Your task to perform on an android device: find which apps use the phone's location Image 0: 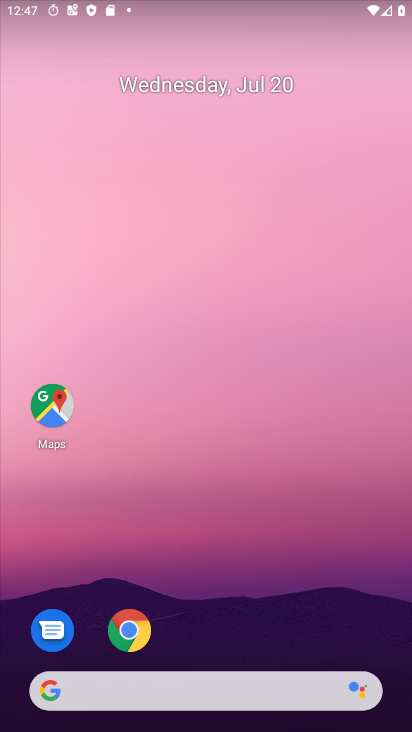
Step 0: drag from (283, 260) to (271, 82)
Your task to perform on an android device: find which apps use the phone's location Image 1: 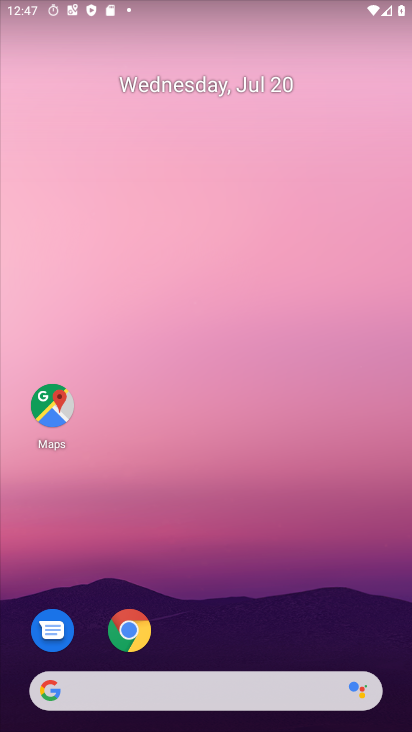
Step 1: drag from (366, 557) to (367, 96)
Your task to perform on an android device: find which apps use the phone's location Image 2: 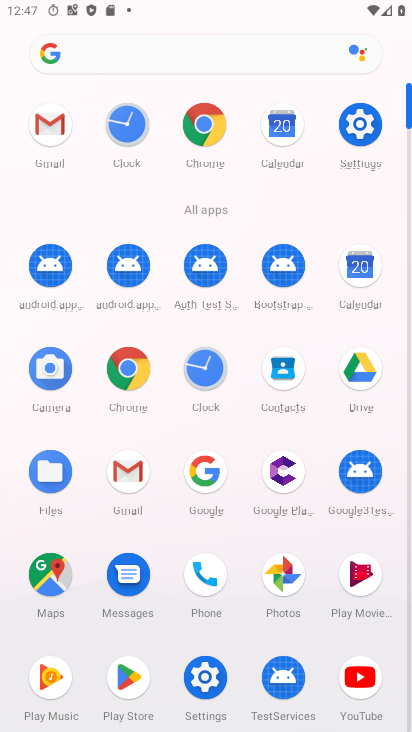
Step 2: click (361, 116)
Your task to perform on an android device: find which apps use the phone's location Image 3: 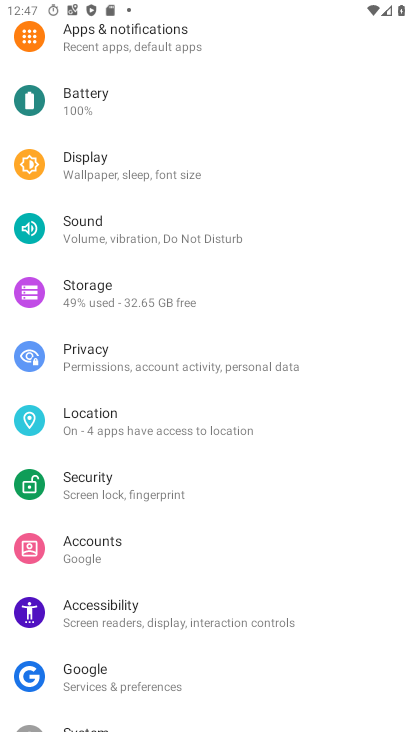
Step 3: click (112, 403)
Your task to perform on an android device: find which apps use the phone's location Image 4: 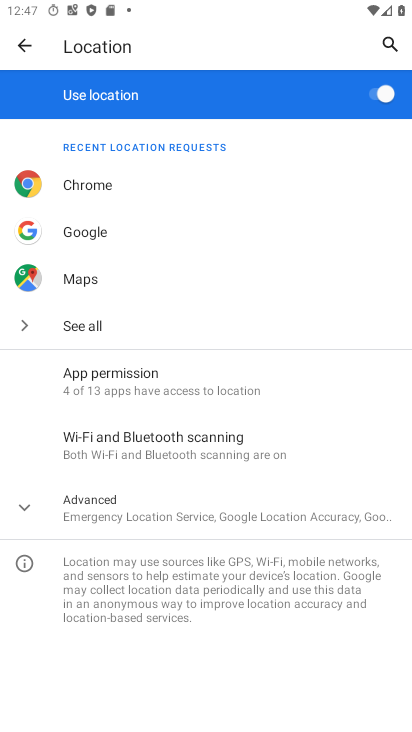
Step 4: click (164, 376)
Your task to perform on an android device: find which apps use the phone's location Image 5: 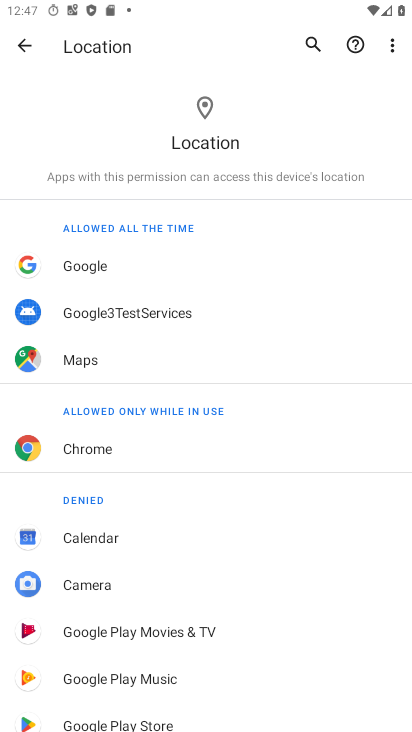
Step 5: task complete